Your task to perform on an android device: turn off location Image 0: 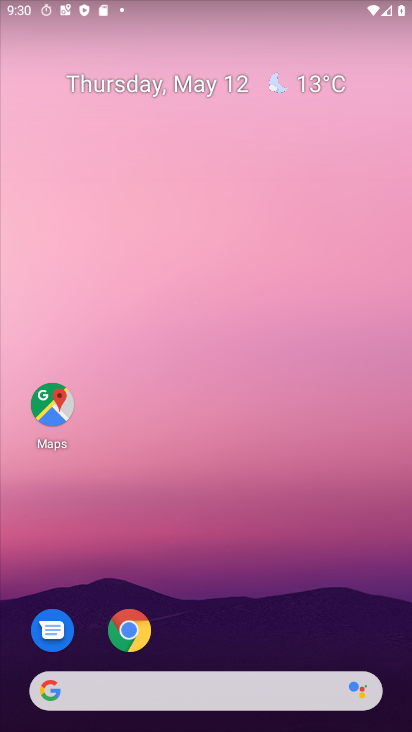
Step 0: drag from (183, 662) to (154, 146)
Your task to perform on an android device: turn off location Image 1: 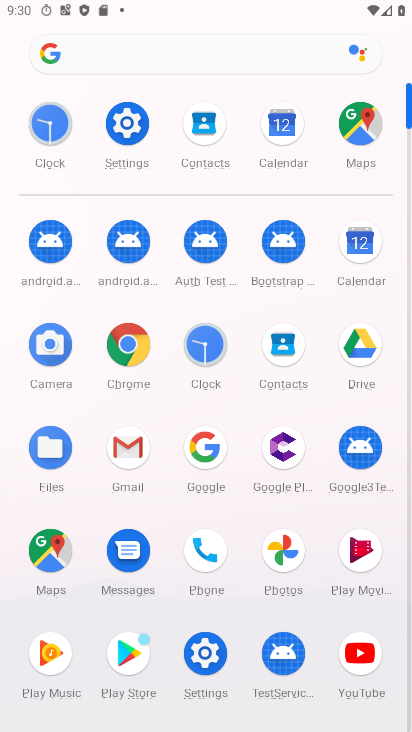
Step 1: click (126, 135)
Your task to perform on an android device: turn off location Image 2: 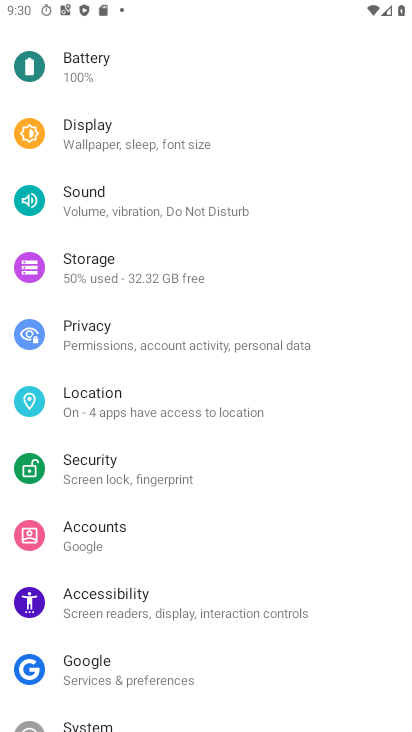
Step 2: click (84, 408)
Your task to perform on an android device: turn off location Image 3: 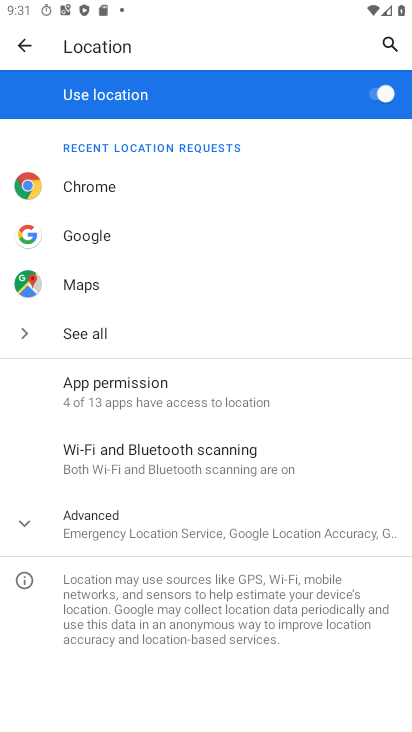
Step 3: click (381, 92)
Your task to perform on an android device: turn off location Image 4: 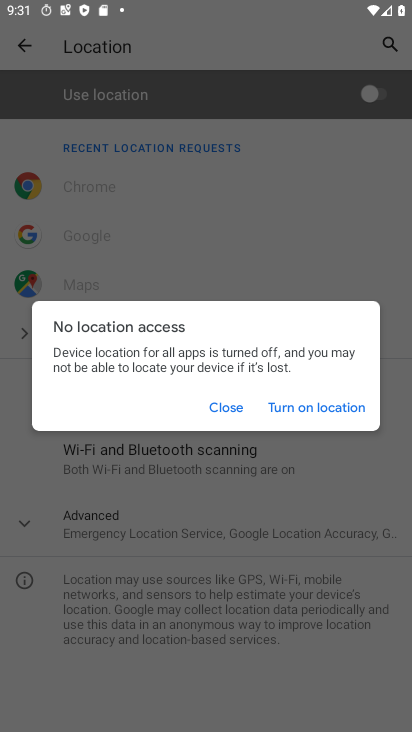
Step 4: task complete